Your task to perform on an android device: toggle sleep mode Image 0: 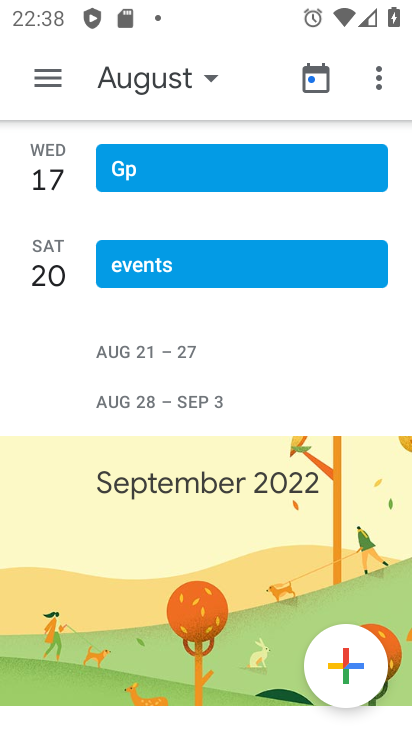
Step 0: press home button
Your task to perform on an android device: toggle sleep mode Image 1: 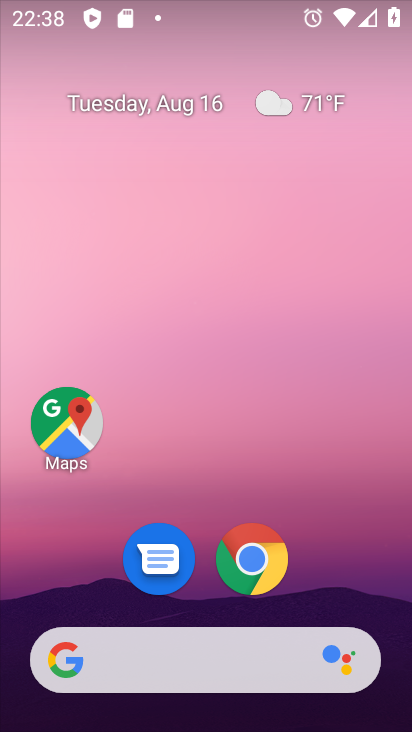
Step 1: drag from (188, 665) to (222, 153)
Your task to perform on an android device: toggle sleep mode Image 2: 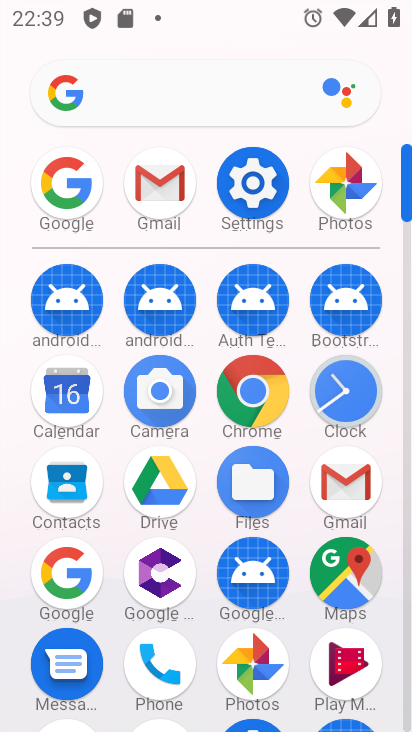
Step 2: click (252, 183)
Your task to perform on an android device: toggle sleep mode Image 3: 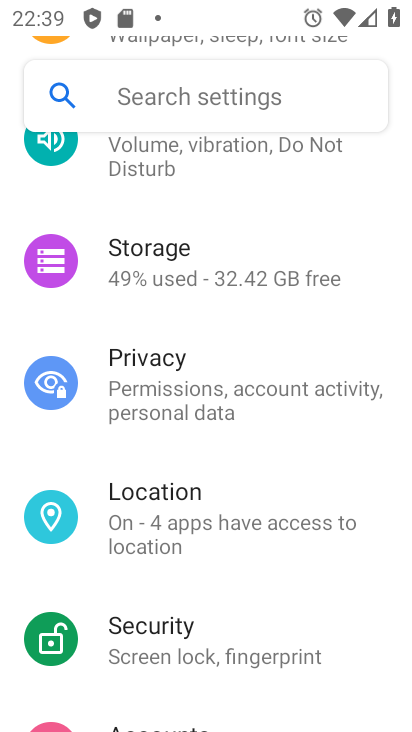
Step 3: drag from (228, 262) to (214, 476)
Your task to perform on an android device: toggle sleep mode Image 4: 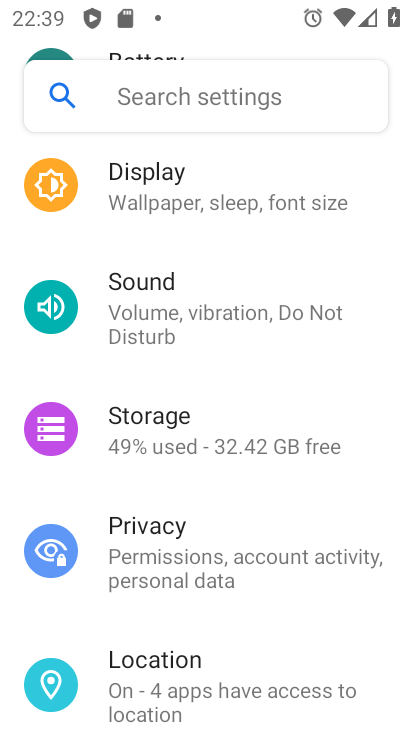
Step 4: drag from (235, 598) to (314, 421)
Your task to perform on an android device: toggle sleep mode Image 5: 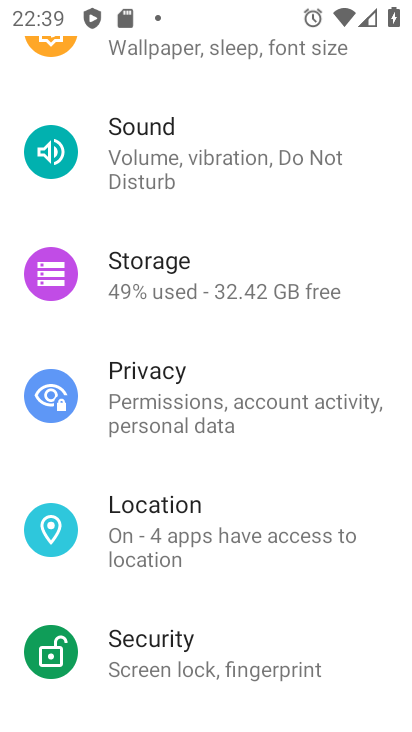
Step 5: drag from (190, 582) to (283, 445)
Your task to perform on an android device: toggle sleep mode Image 6: 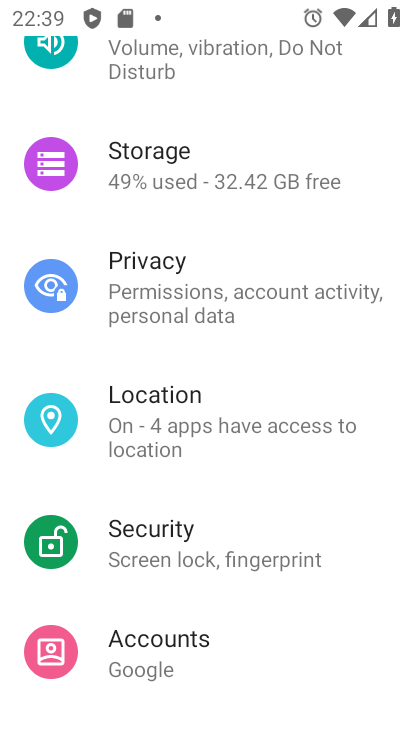
Step 6: drag from (231, 619) to (344, 469)
Your task to perform on an android device: toggle sleep mode Image 7: 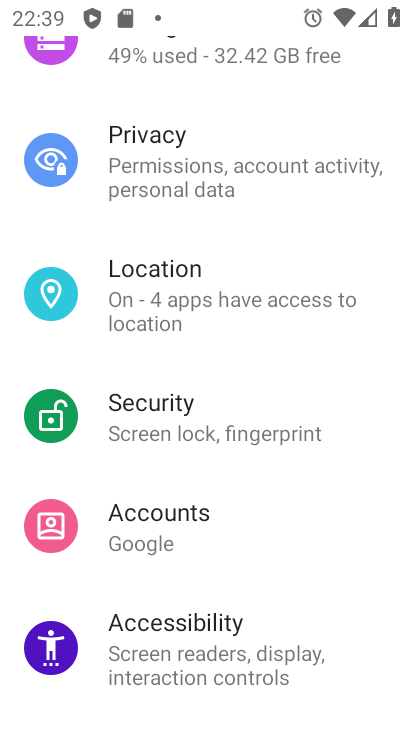
Step 7: drag from (247, 593) to (322, 430)
Your task to perform on an android device: toggle sleep mode Image 8: 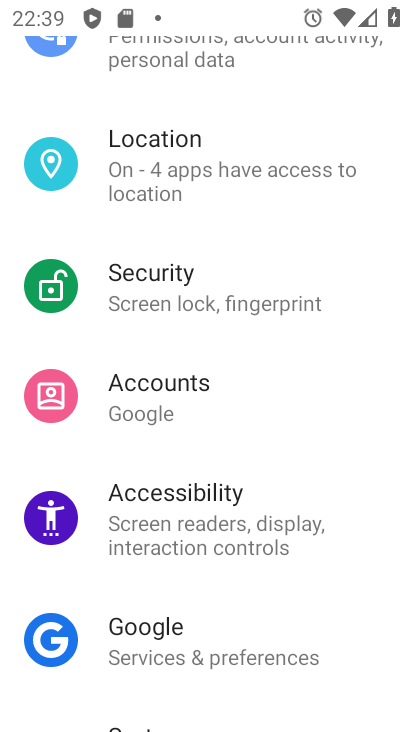
Step 8: drag from (210, 566) to (254, 479)
Your task to perform on an android device: toggle sleep mode Image 9: 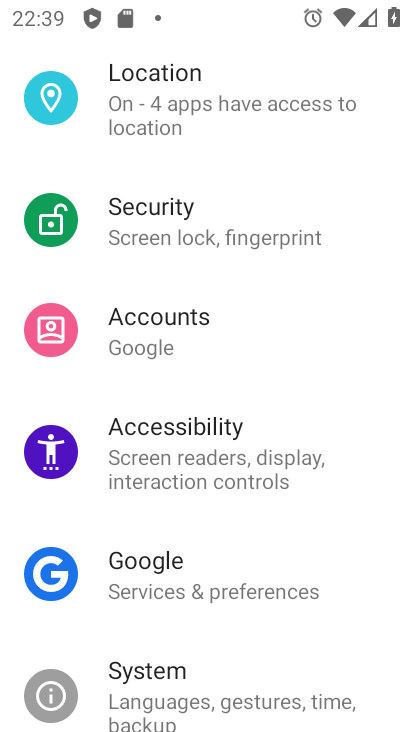
Step 9: drag from (234, 540) to (293, 460)
Your task to perform on an android device: toggle sleep mode Image 10: 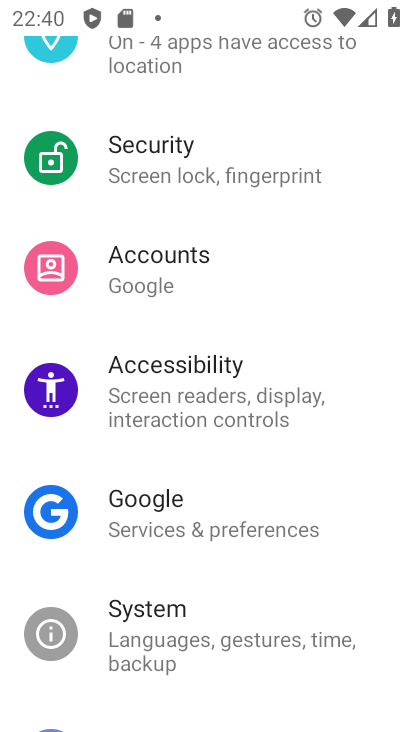
Step 10: drag from (268, 587) to (306, 447)
Your task to perform on an android device: toggle sleep mode Image 11: 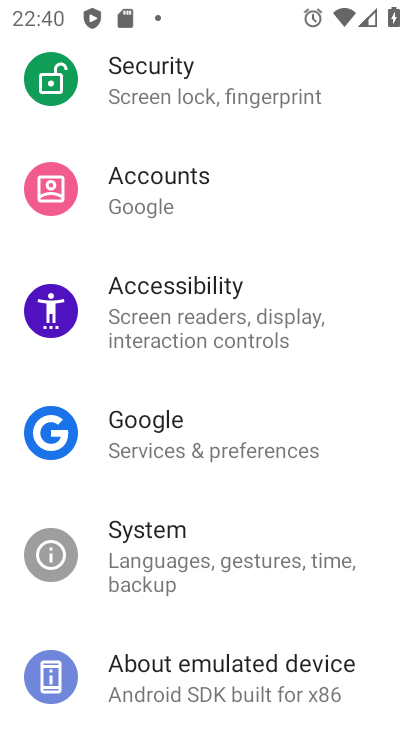
Step 11: drag from (217, 246) to (219, 423)
Your task to perform on an android device: toggle sleep mode Image 12: 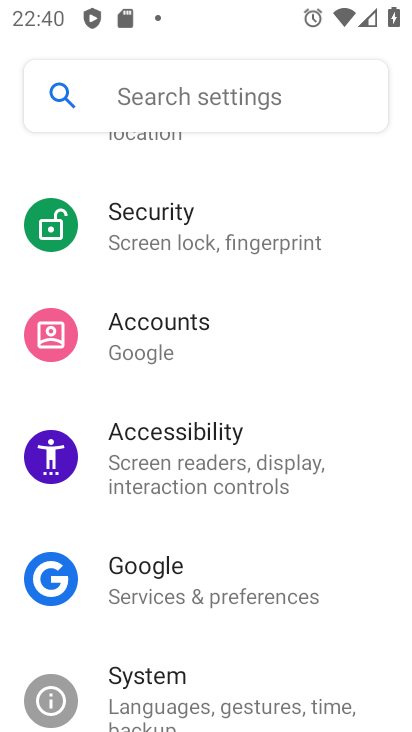
Step 12: drag from (227, 304) to (239, 564)
Your task to perform on an android device: toggle sleep mode Image 13: 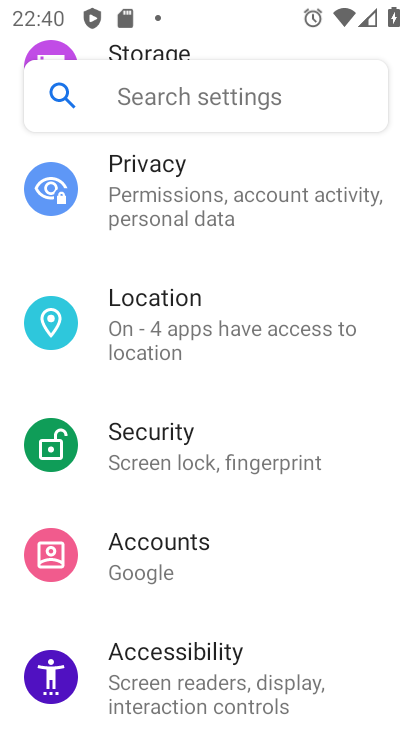
Step 13: drag from (299, 371) to (274, 540)
Your task to perform on an android device: toggle sleep mode Image 14: 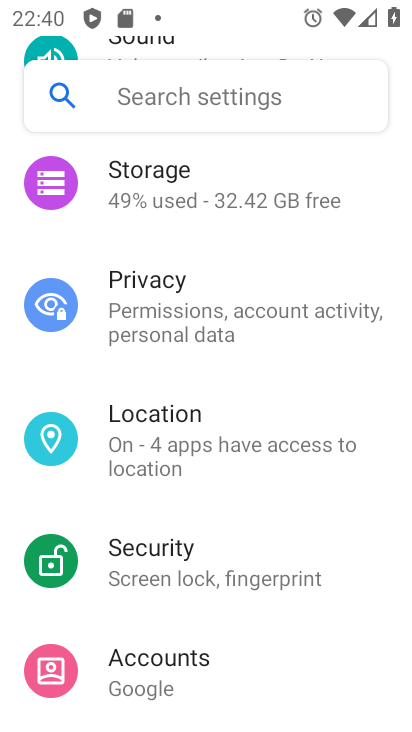
Step 14: drag from (270, 172) to (223, 474)
Your task to perform on an android device: toggle sleep mode Image 15: 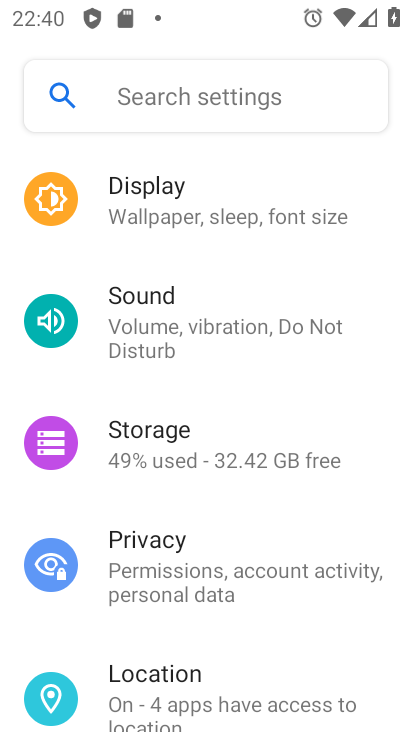
Step 15: drag from (230, 203) to (212, 373)
Your task to perform on an android device: toggle sleep mode Image 16: 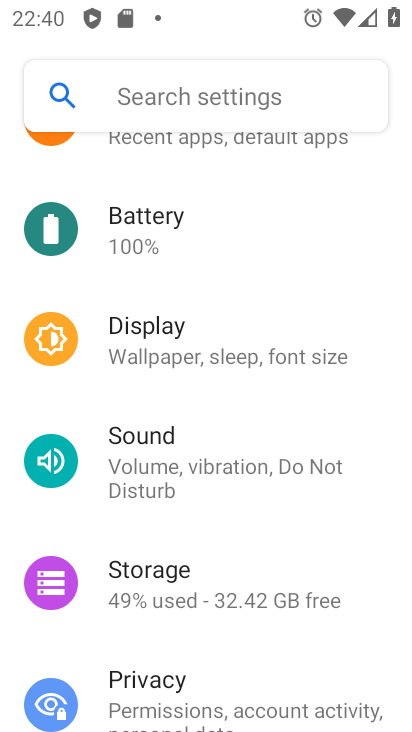
Step 16: click (206, 343)
Your task to perform on an android device: toggle sleep mode Image 17: 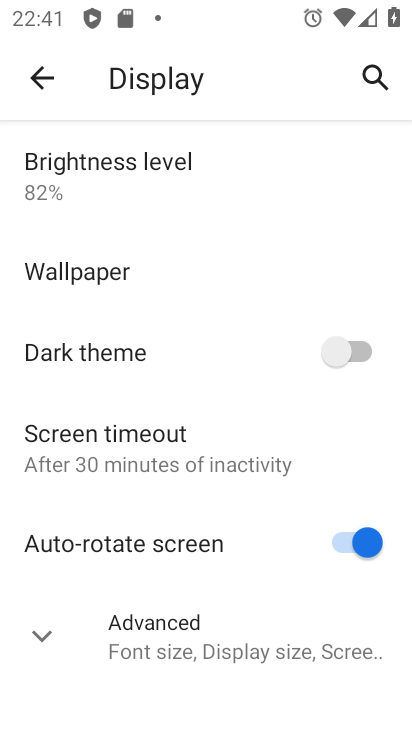
Step 17: click (202, 642)
Your task to perform on an android device: toggle sleep mode Image 18: 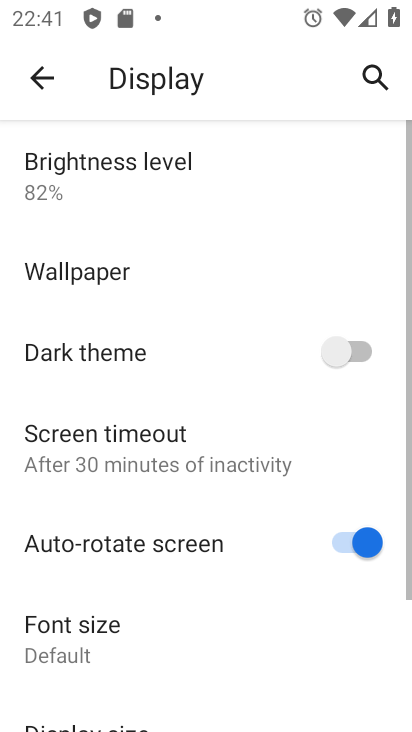
Step 18: task complete